Your task to perform on an android device: see creations saved in the google photos Image 0: 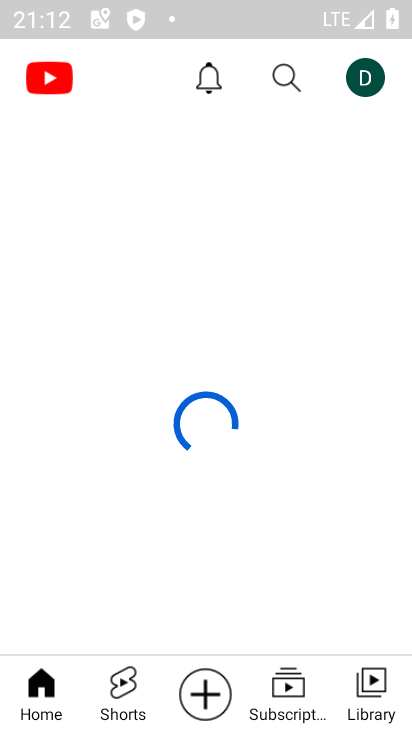
Step 0: click (356, 575)
Your task to perform on an android device: see creations saved in the google photos Image 1: 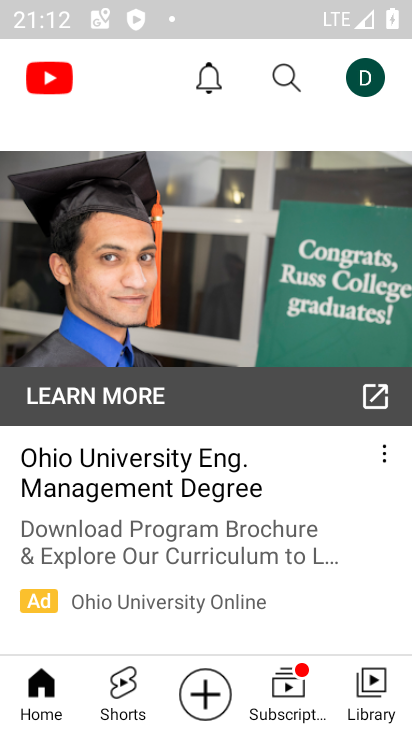
Step 1: press home button
Your task to perform on an android device: see creations saved in the google photos Image 2: 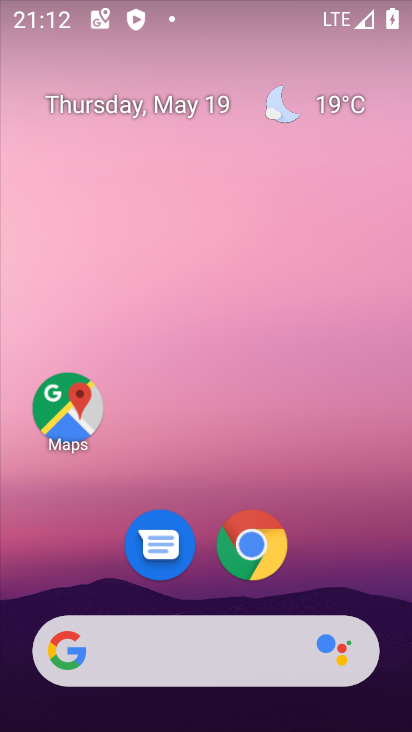
Step 2: drag from (350, 572) to (350, 251)
Your task to perform on an android device: see creations saved in the google photos Image 3: 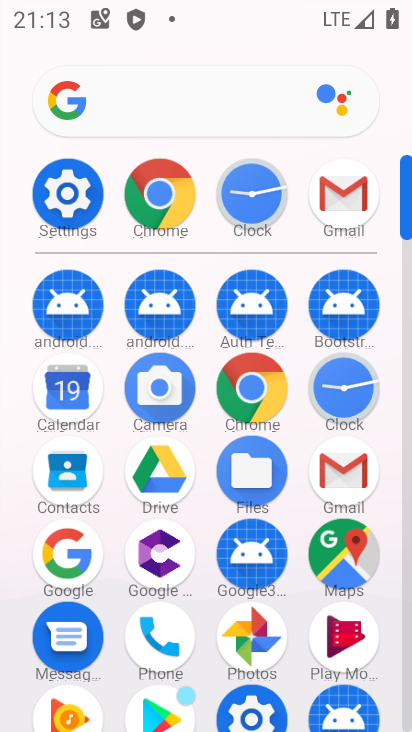
Step 3: click (251, 634)
Your task to perform on an android device: see creations saved in the google photos Image 4: 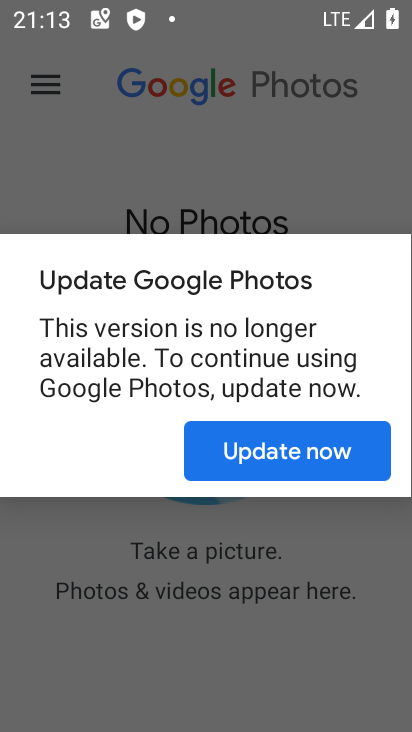
Step 4: click (283, 458)
Your task to perform on an android device: see creations saved in the google photos Image 5: 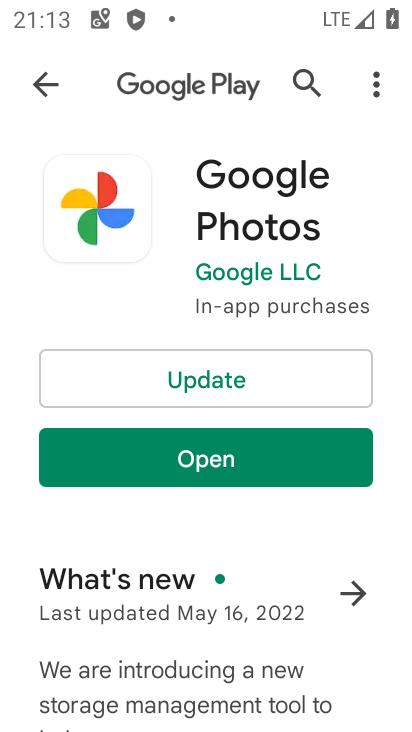
Step 5: click (250, 374)
Your task to perform on an android device: see creations saved in the google photos Image 6: 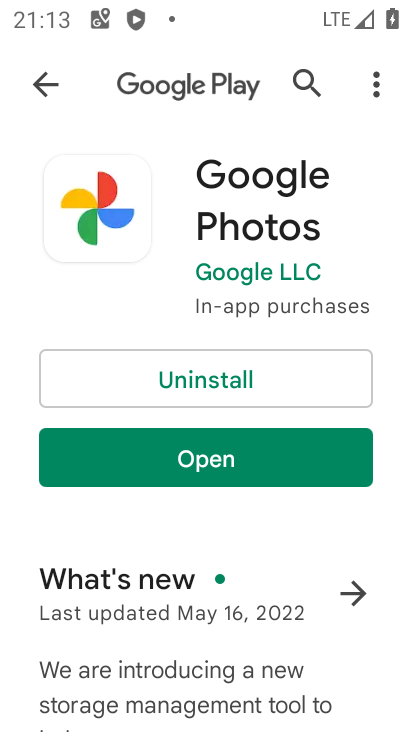
Step 6: click (201, 447)
Your task to perform on an android device: see creations saved in the google photos Image 7: 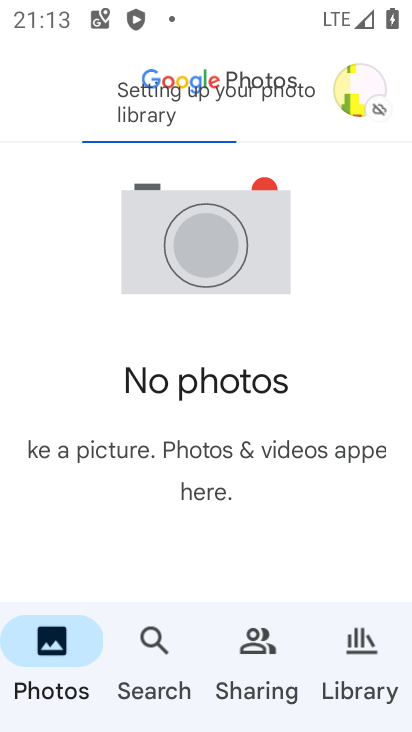
Step 7: click (365, 677)
Your task to perform on an android device: see creations saved in the google photos Image 8: 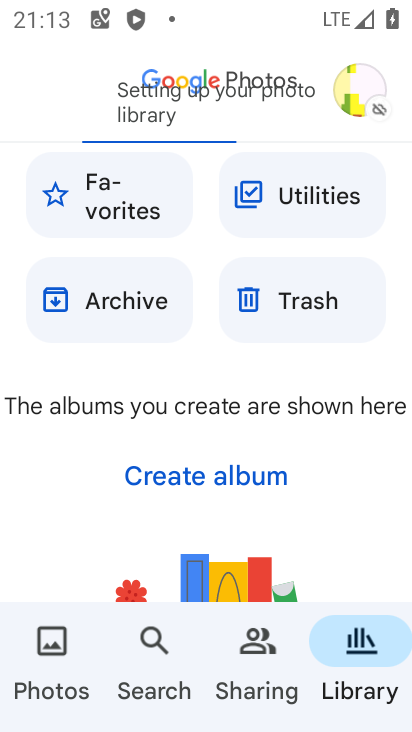
Step 8: click (128, 318)
Your task to perform on an android device: see creations saved in the google photos Image 9: 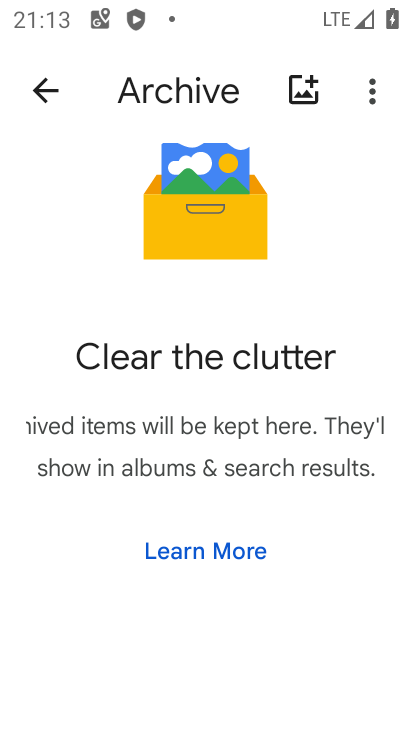
Step 9: task complete